Your task to perform on an android device: turn on airplane mode Image 0: 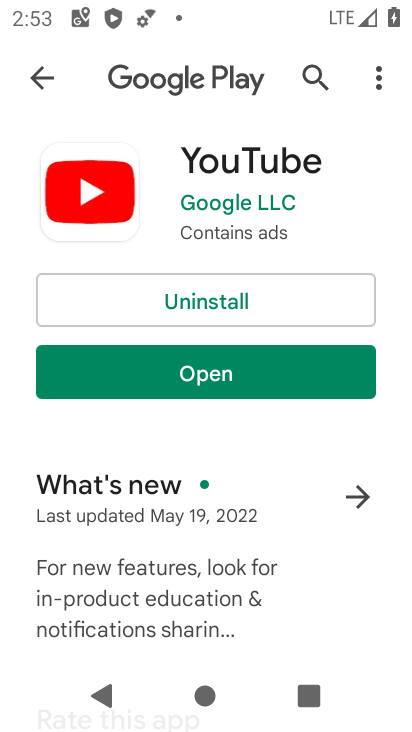
Step 0: press home button
Your task to perform on an android device: turn on airplane mode Image 1: 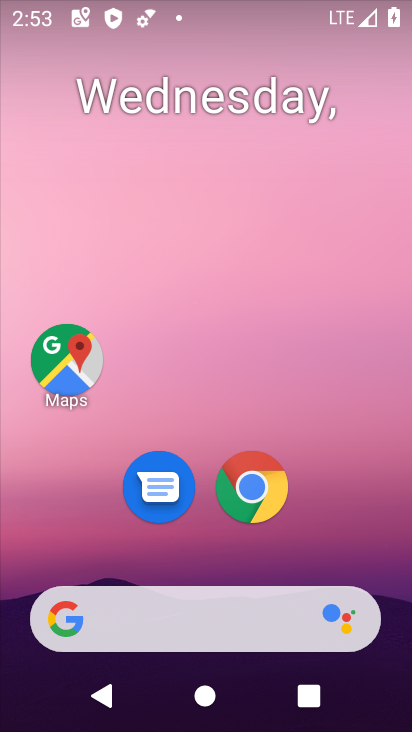
Step 1: drag from (340, 545) to (338, 50)
Your task to perform on an android device: turn on airplane mode Image 2: 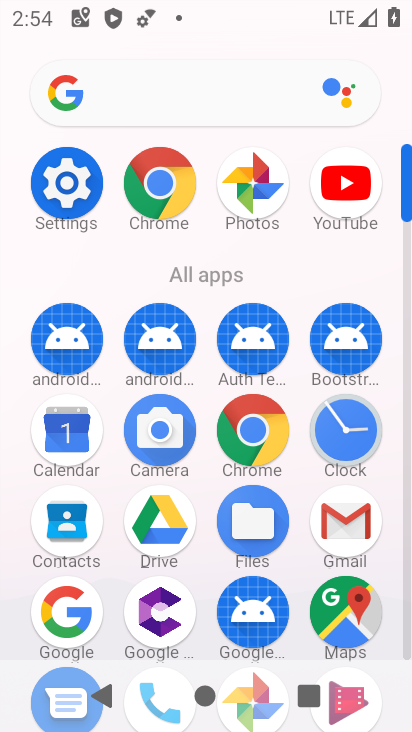
Step 2: click (66, 196)
Your task to perform on an android device: turn on airplane mode Image 3: 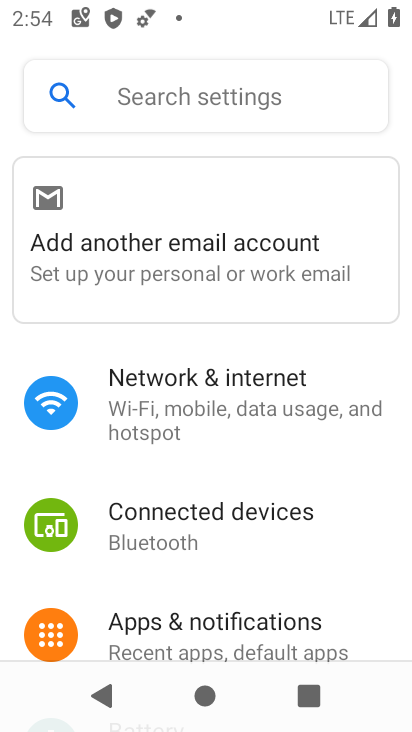
Step 3: click (206, 387)
Your task to perform on an android device: turn on airplane mode Image 4: 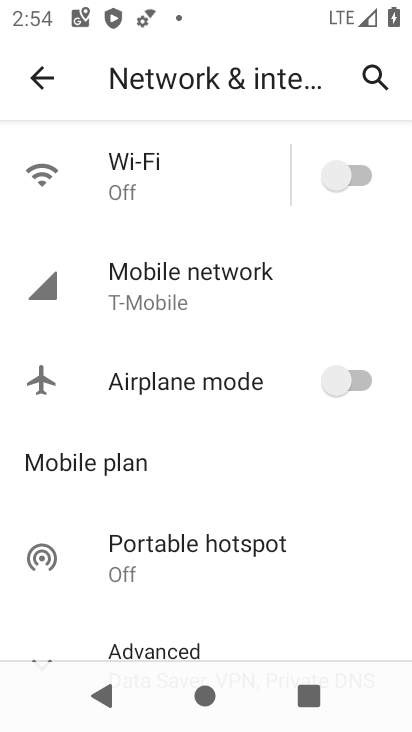
Step 4: click (336, 373)
Your task to perform on an android device: turn on airplane mode Image 5: 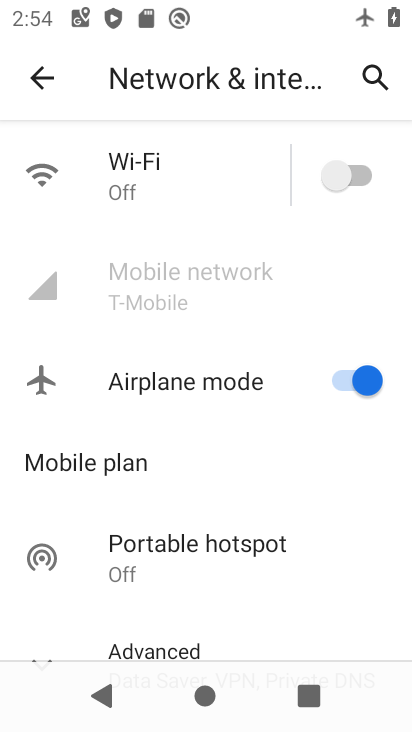
Step 5: task complete